Your task to perform on an android device: find snoozed emails in the gmail app Image 0: 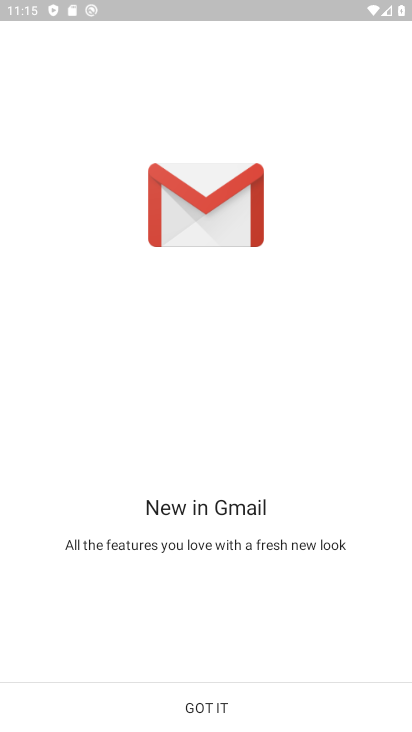
Step 0: click (229, 721)
Your task to perform on an android device: find snoozed emails in the gmail app Image 1: 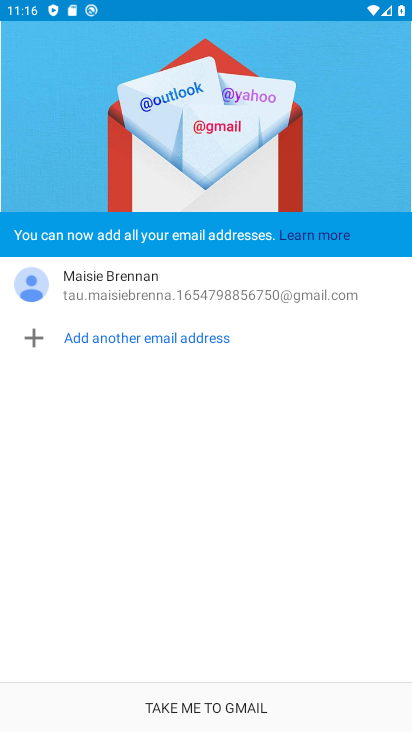
Step 1: click (123, 697)
Your task to perform on an android device: find snoozed emails in the gmail app Image 2: 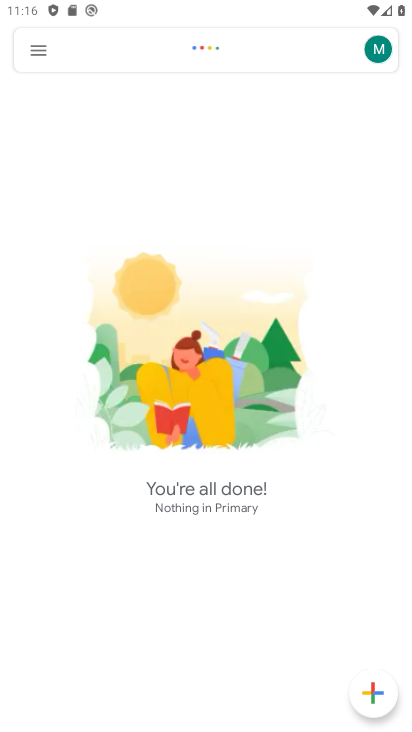
Step 2: click (41, 46)
Your task to perform on an android device: find snoozed emails in the gmail app Image 3: 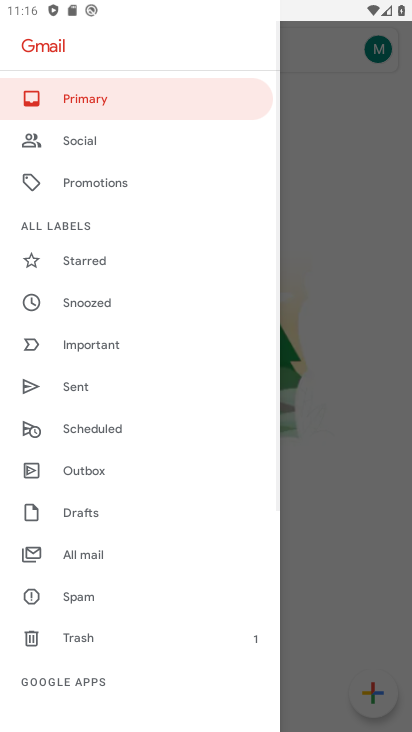
Step 3: click (96, 302)
Your task to perform on an android device: find snoozed emails in the gmail app Image 4: 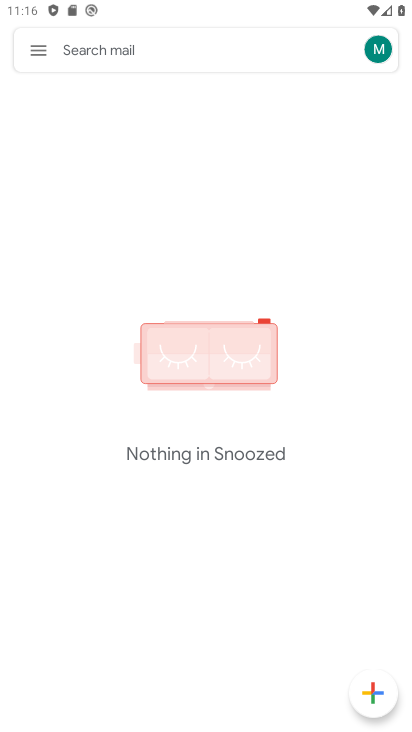
Step 4: task complete